Your task to perform on an android device: Open Chrome and go to settings Image 0: 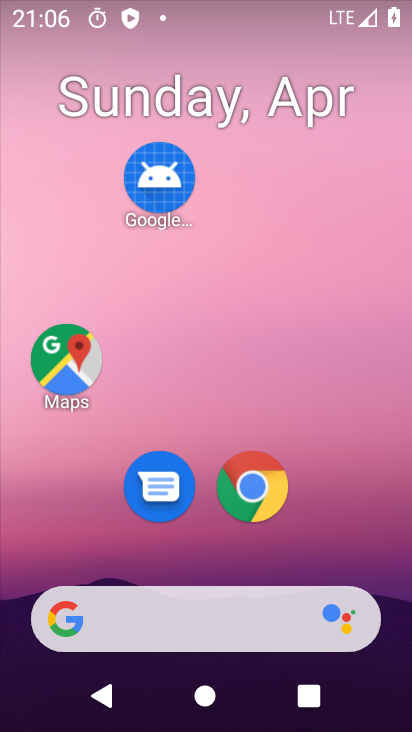
Step 0: click (251, 486)
Your task to perform on an android device: Open Chrome and go to settings Image 1: 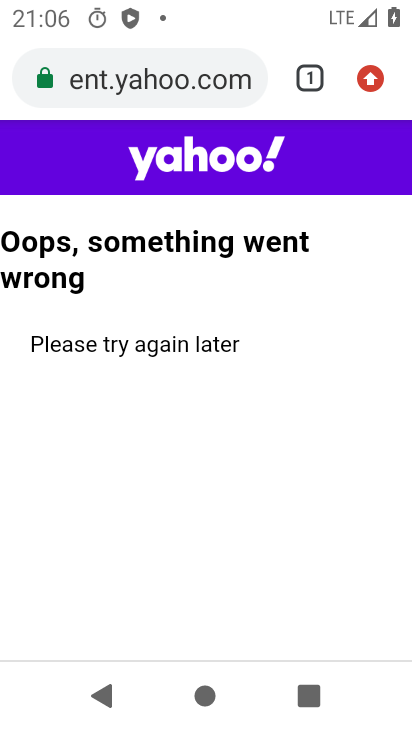
Step 1: task complete